Your task to perform on an android device: Search for Mexican restaurants on Maps Image 0: 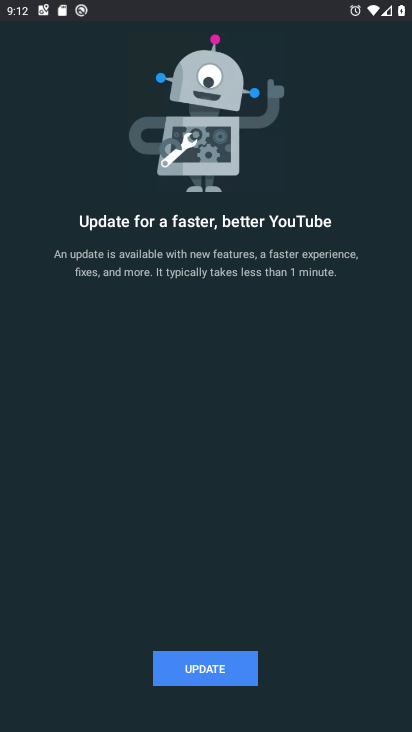
Step 0: press home button
Your task to perform on an android device: Search for Mexican restaurants on Maps Image 1: 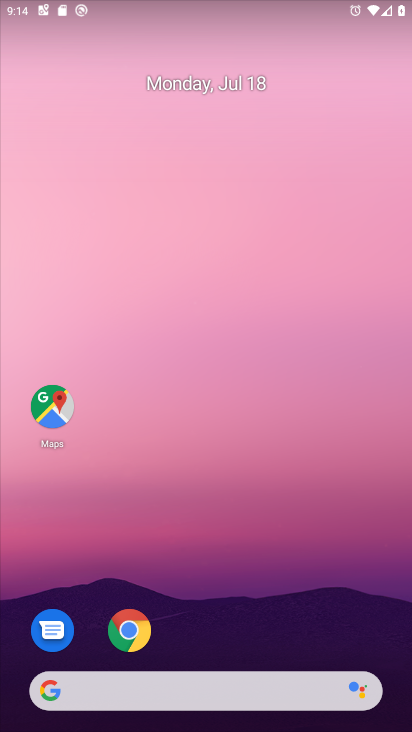
Step 1: click (44, 429)
Your task to perform on an android device: Search for Mexican restaurants on Maps Image 2: 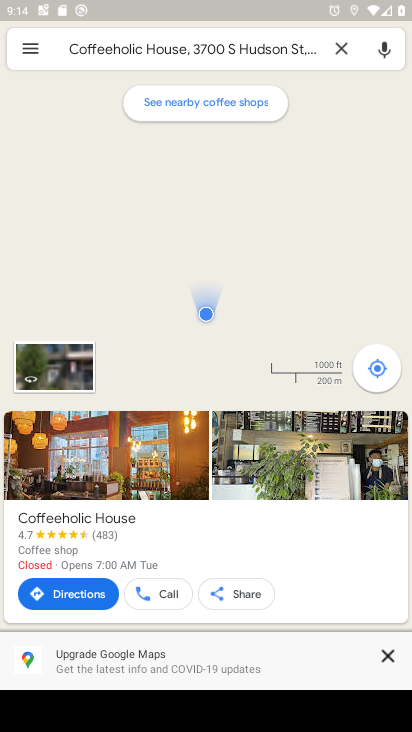
Step 2: click (332, 51)
Your task to perform on an android device: Search for Mexican restaurants on Maps Image 3: 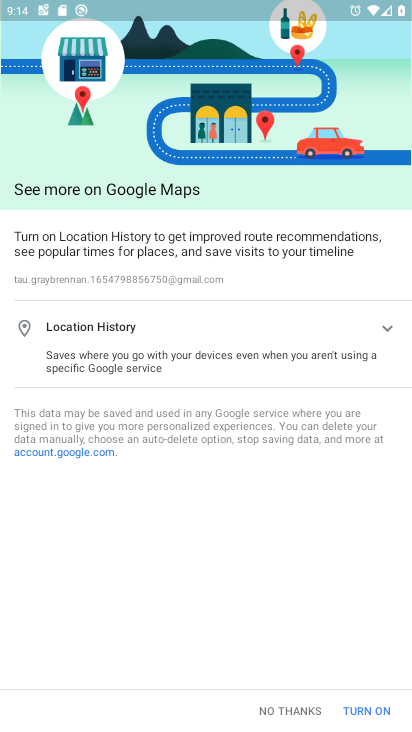
Step 3: click (368, 714)
Your task to perform on an android device: Search for Mexican restaurants on Maps Image 4: 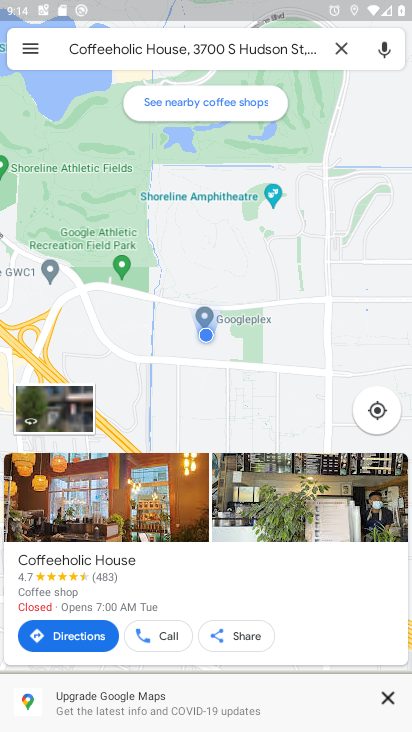
Step 4: click (338, 44)
Your task to perform on an android device: Search for Mexican restaurants on Maps Image 5: 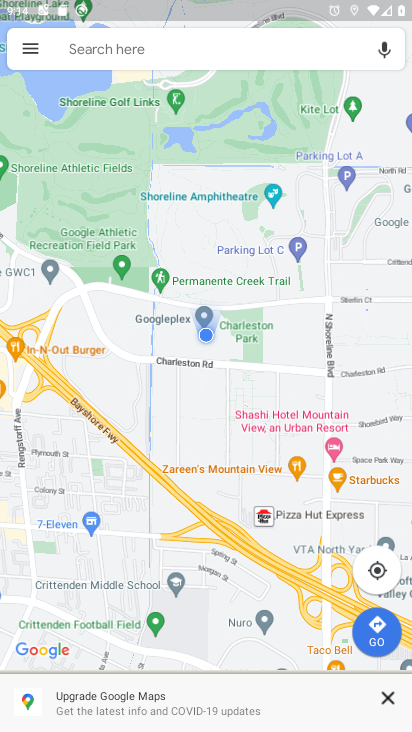
Step 5: click (264, 49)
Your task to perform on an android device: Search for Mexican restaurants on Maps Image 6: 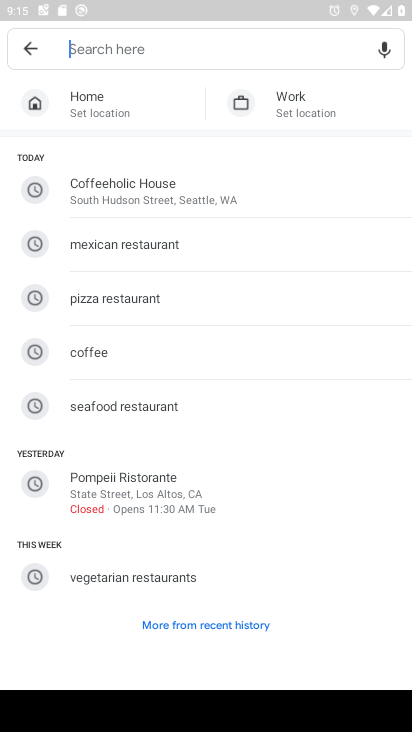
Step 6: click (201, 252)
Your task to perform on an android device: Search for Mexican restaurants on Maps Image 7: 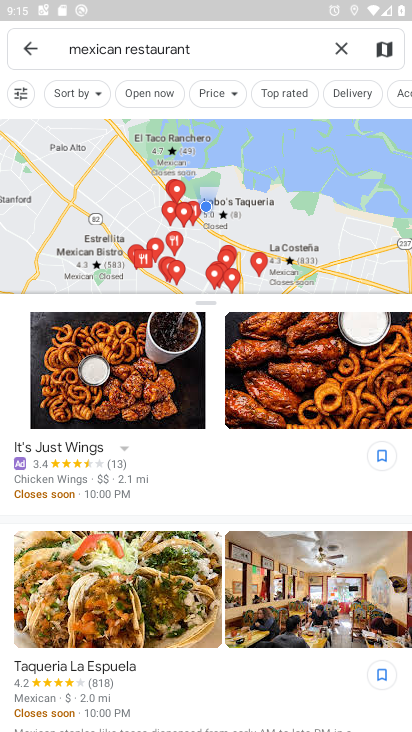
Step 7: task complete